Your task to perform on an android device: find photos in the google photos app Image 0: 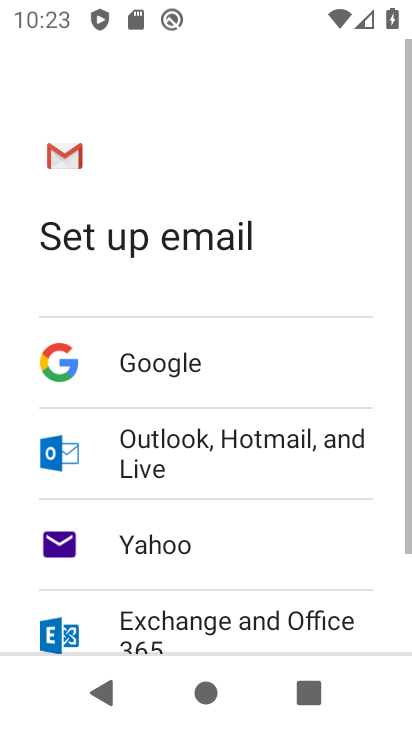
Step 0: drag from (223, 583) to (276, 178)
Your task to perform on an android device: find photos in the google photos app Image 1: 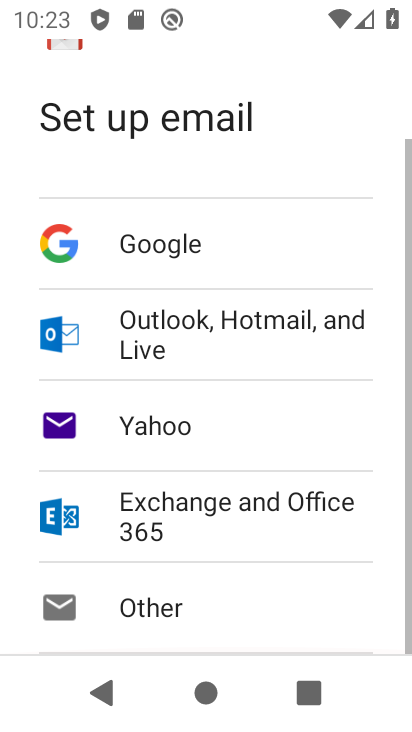
Step 1: press home button
Your task to perform on an android device: find photos in the google photos app Image 2: 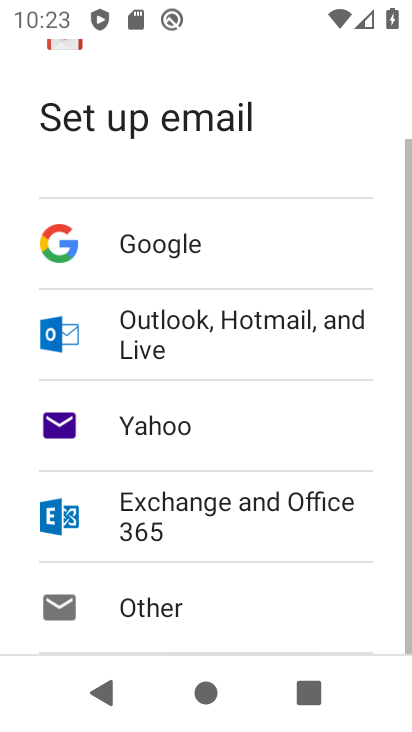
Step 2: click (258, 117)
Your task to perform on an android device: find photos in the google photos app Image 3: 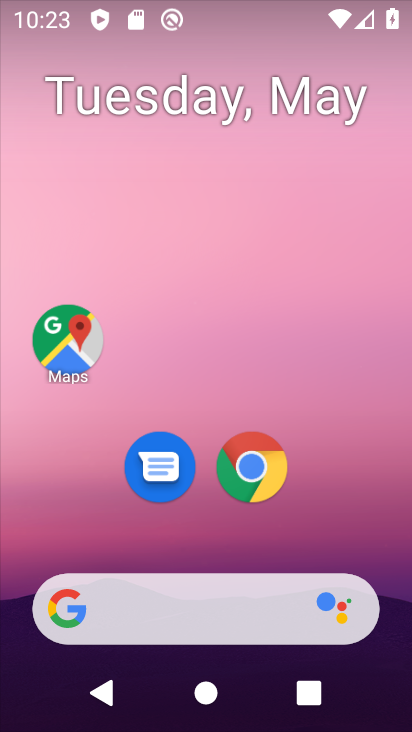
Step 3: click (264, 192)
Your task to perform on an android device: find photos in the google photos app Image 4: 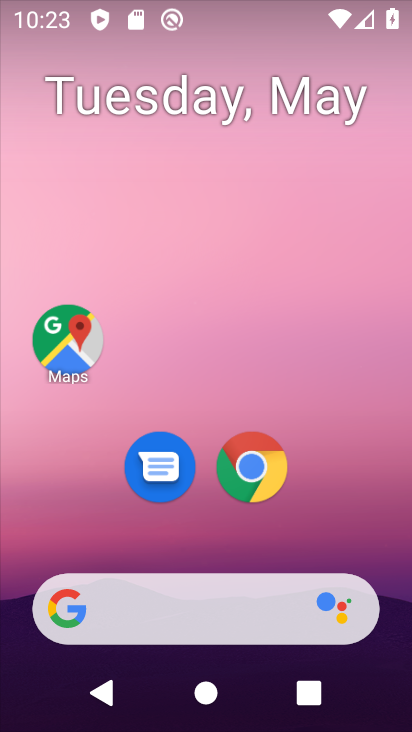
Step 4: drag from (231, 542) to (235, 192)
Your task to perform on an android device: find photos in the google photos app Image 5: 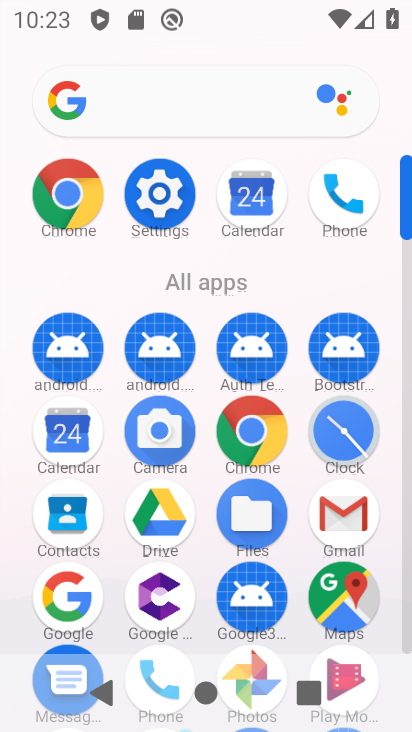
Step 5: drag from (202, 647) to (254, 560)
Your task to perform on an android device: find photos in the google photos app Image 6: 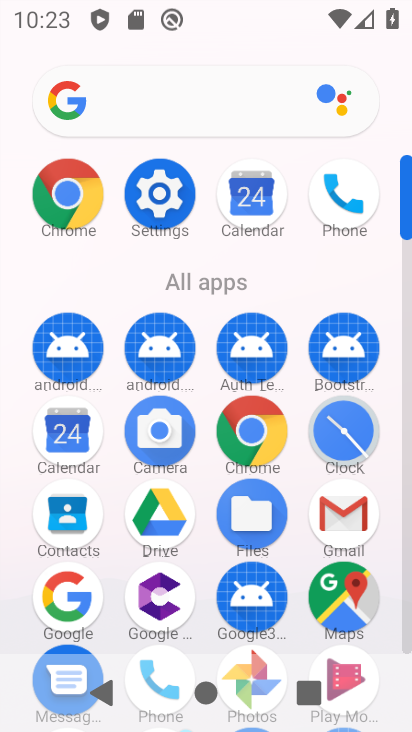
Step 6: drag from (209, 636) to (219, 337)
Your task to perform on an android device: find photos in the google photos app Image 7: 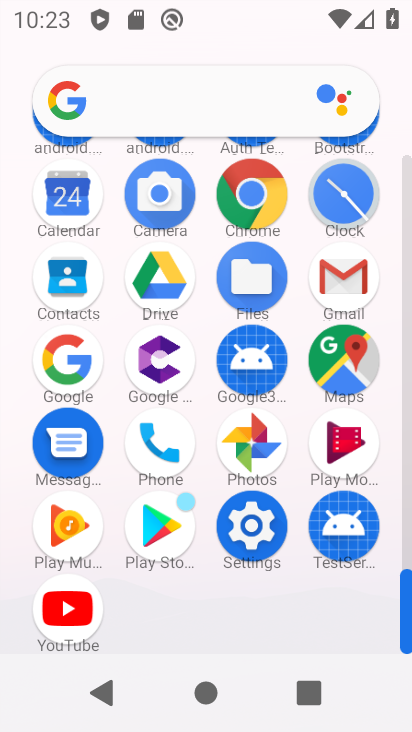
Step 7: click (251, 441)
Your task to perform on an android device: find photos in the google photos app Image 8: 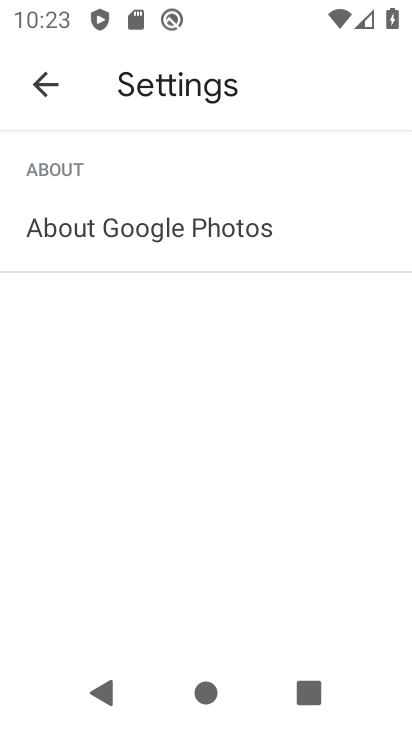
Step 8: click (34, 95)
Your task to perform on an android device: find photos in the google photos app Image 9: 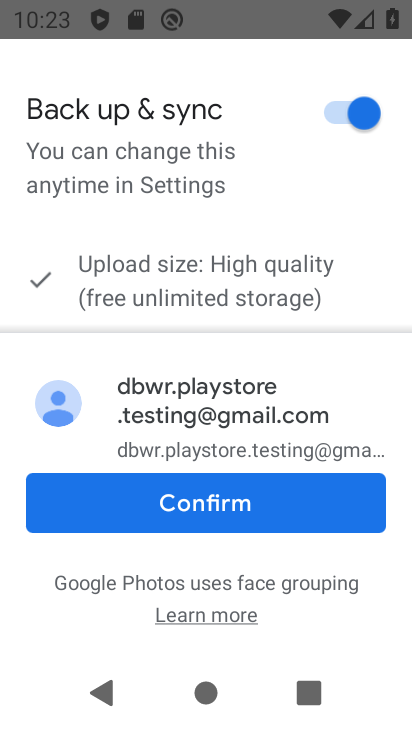
Step 9: click (203, 506)
Your task to perform on an android device: find photos in the google photos app Image 10: 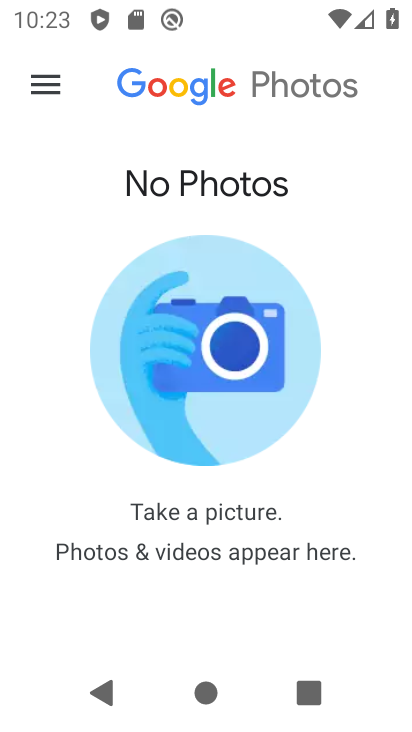
Step 10: drag from (278, 535) to (288, 213)
Your task to perform on an android device: find photos in the google photos app Image 11: 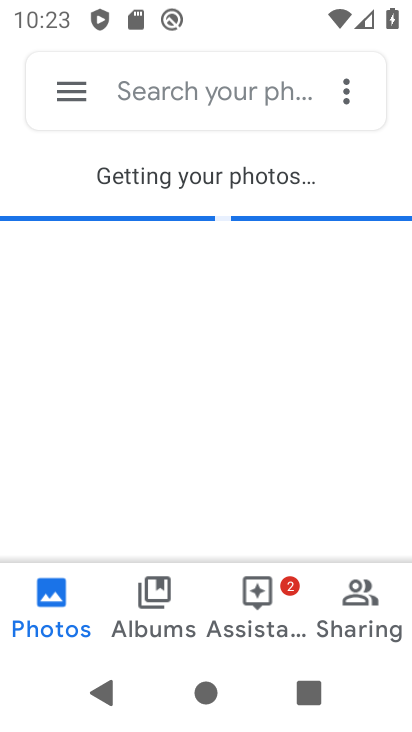
Step 11: click (151, 589)
Your task to perform on an android device: find photos in the google photos app Image 12: 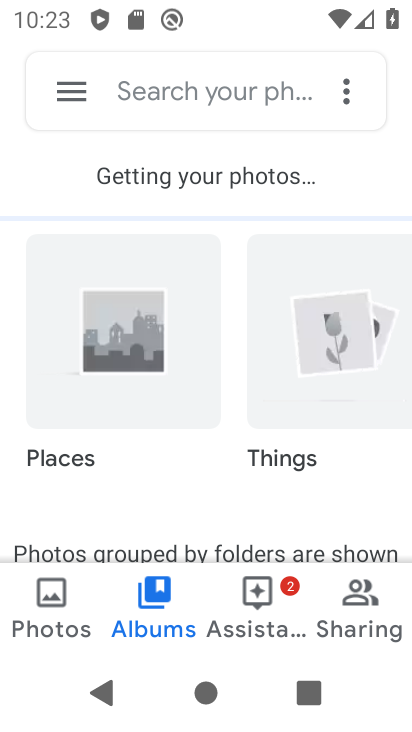
Step 12: click (35, 602)
Your task to perform on an android device: find photos in the google photos app Image 13: 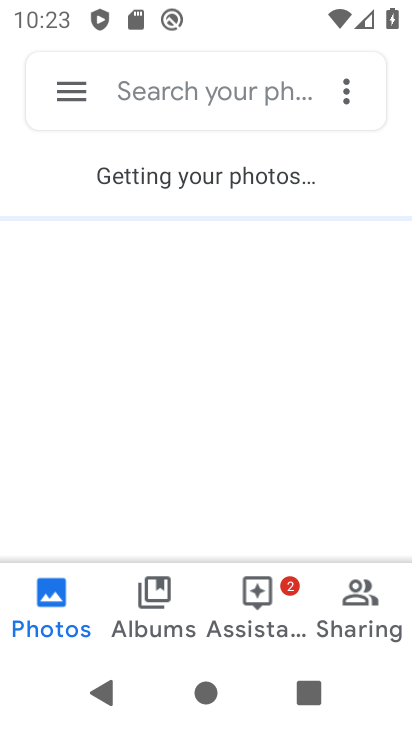
Step 13: drag from (175, 497) to (290, 318)
Your task to perform on an android device: find photos in the google photos app Image 14: 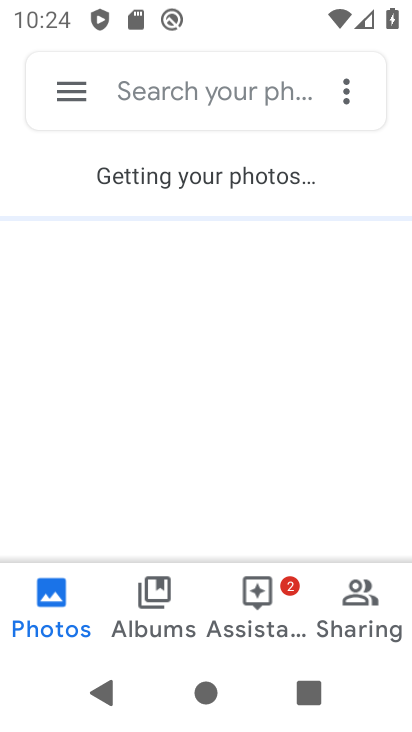
Step 14: click (135, 606)
Your task to perform on an android device: find photos in the google photos app Image 15: 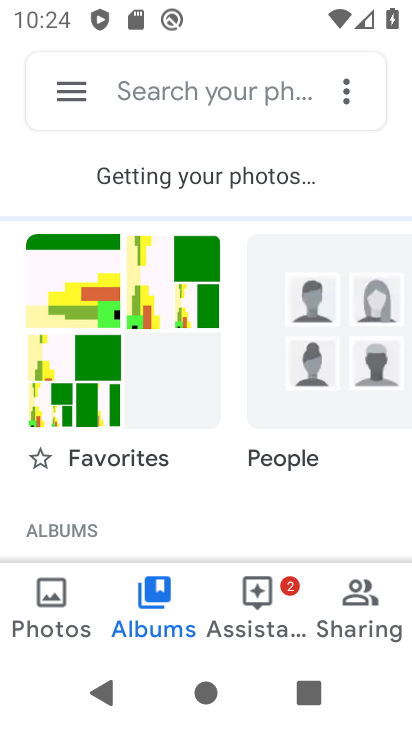
Step 15: click (150, 282)
Your task to perform on an android device: find photos in the google photos app Image 16: 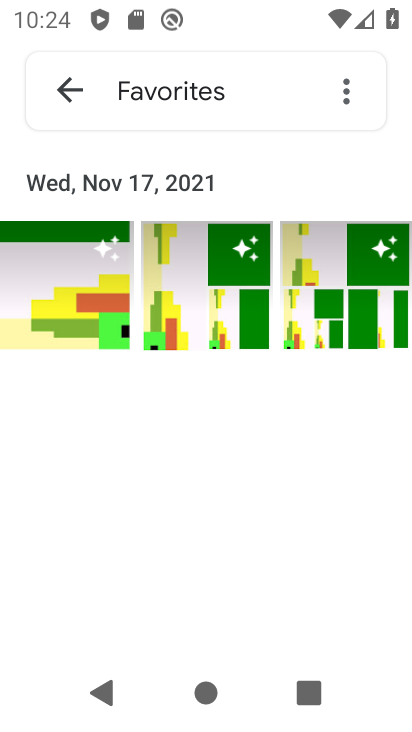
Step 16: click (95, 290)
Your task to perform on an android device: find photos in the google photos app Image 17: 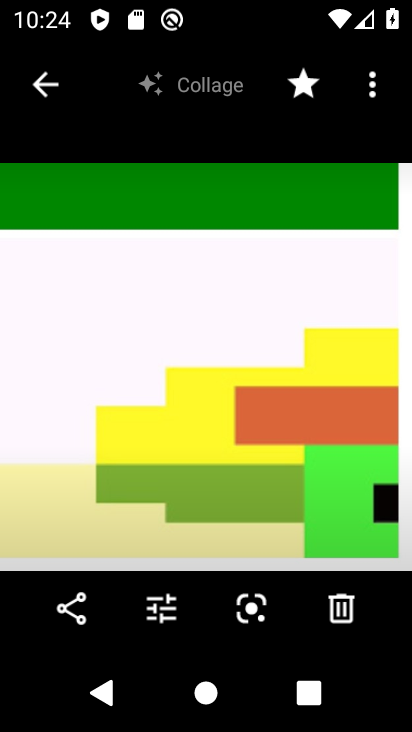
Step 17: drag from (4, 398) to (9, 465)
Your task to perform on an android device: find photos in the google photos app Image 18: 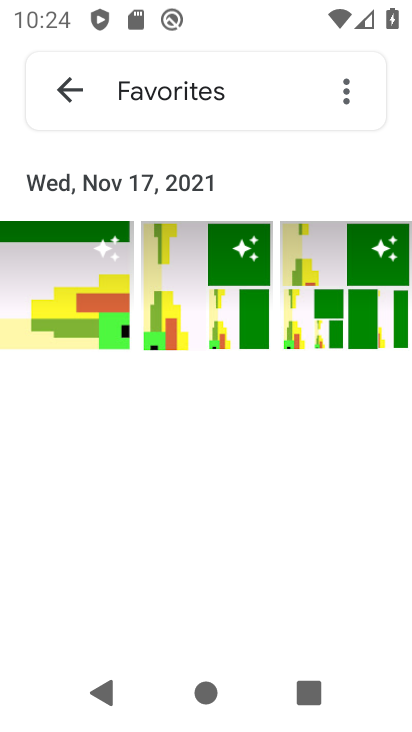
Step 18: drag from (379, 398) to (9, 418)
Your task to perform on an android device: find photos in the google photos app Image 19: 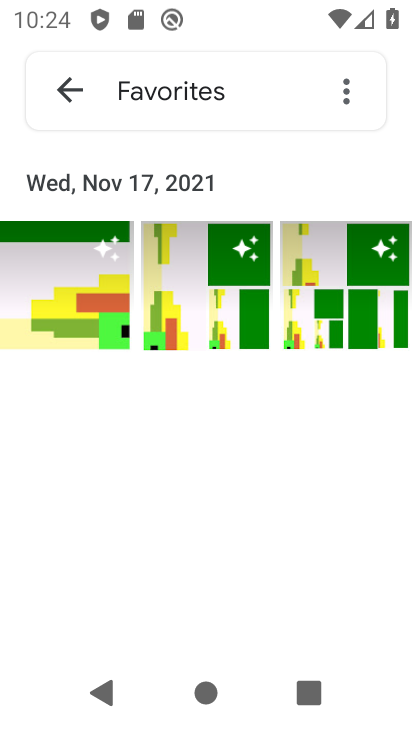
Step 19: click (200, 315)
Your task to perform on an android device: find photos in the google photos app Image 20: 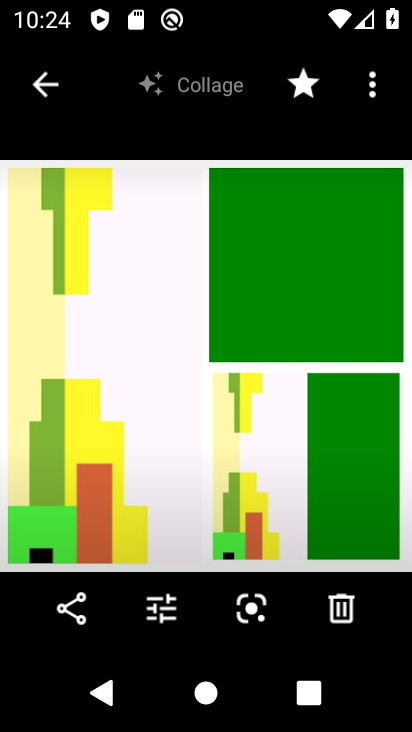
Step 20: task complete